Your task to perform on an android device: open a new tab in the chrome app Image 0: 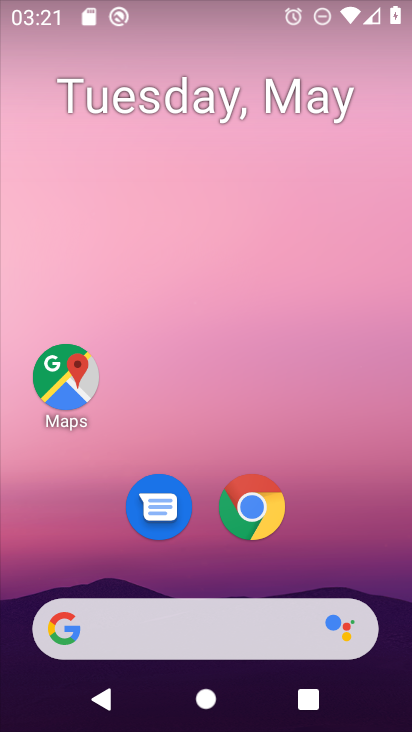
Step 0: click (253, 515)
Your task to perform on an android device: open a new tab in the chrome app Image 1: 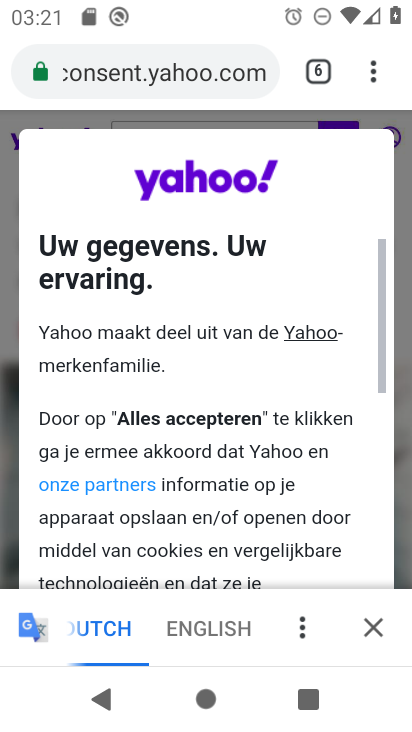
Step 1: click (311, 73)
Your task to perform on an android device: open a new tab in the chrome app Image 2: 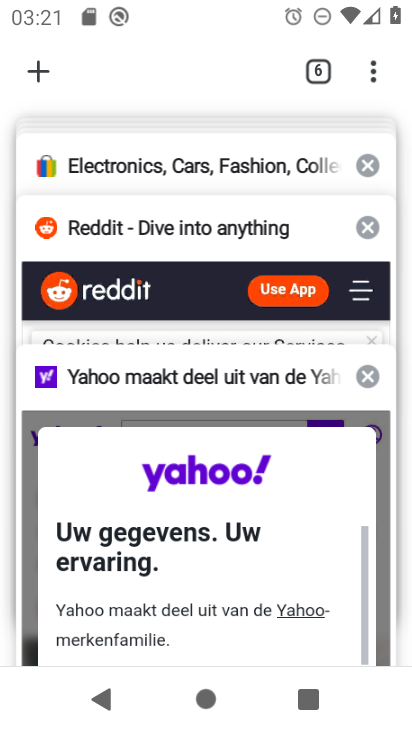
Step 2: click (36, 76)
Your task to perform on an android device: open a new tab in the chrome app Image 3: 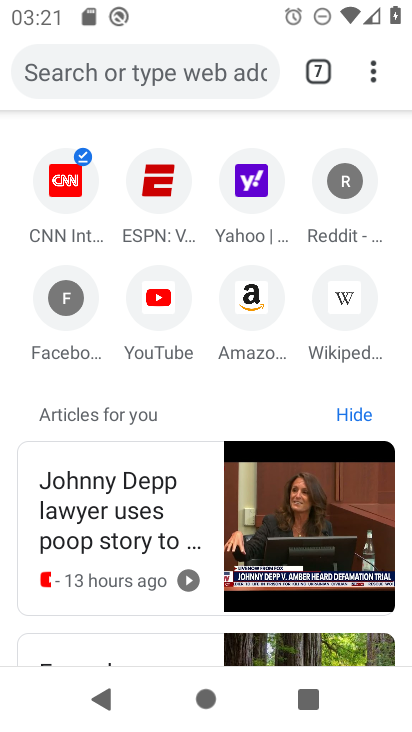
Step 3: task complete